Your task to perform on an android device: Go to Yahoo.com Image 0: 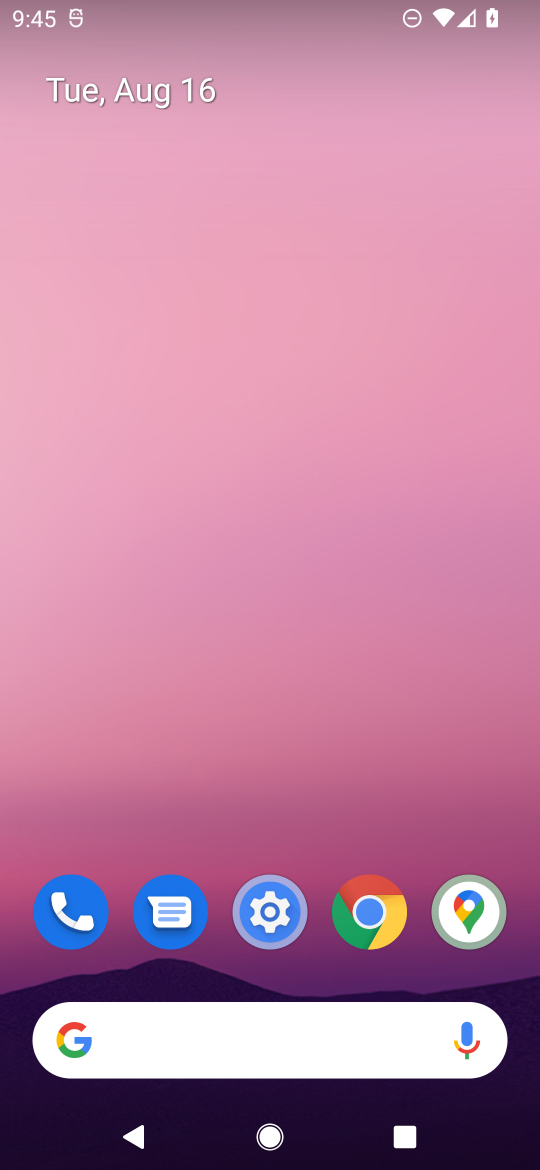
Step 0: click (373, 917)
Your task to perform on an android device: Go to Yahoo.com Image 1: 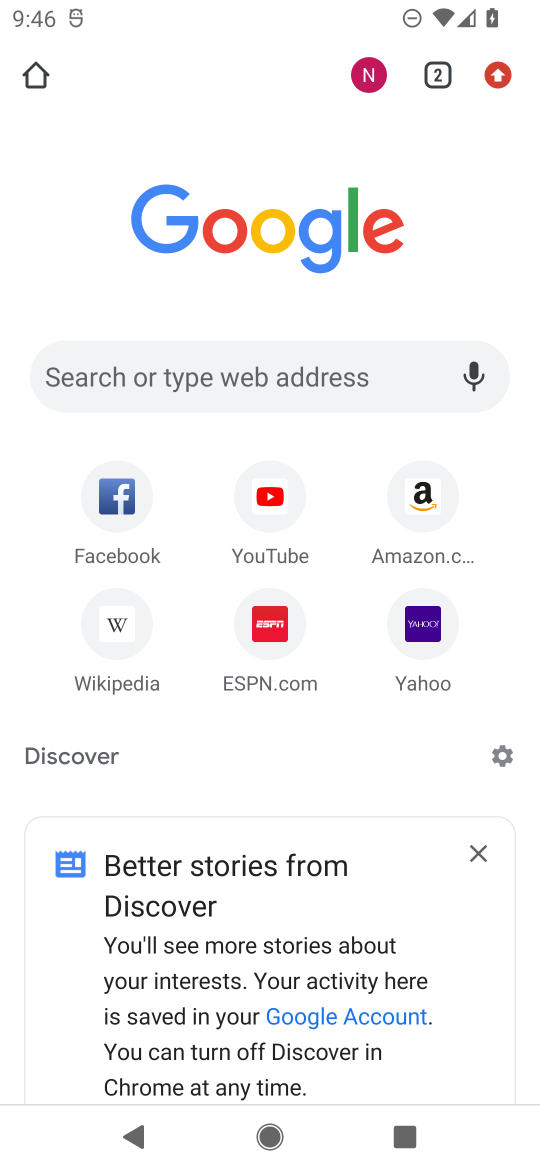
Step 1: click (412, 641)
Your task to perform on an android device: Go to Yahoo.com Image 2: 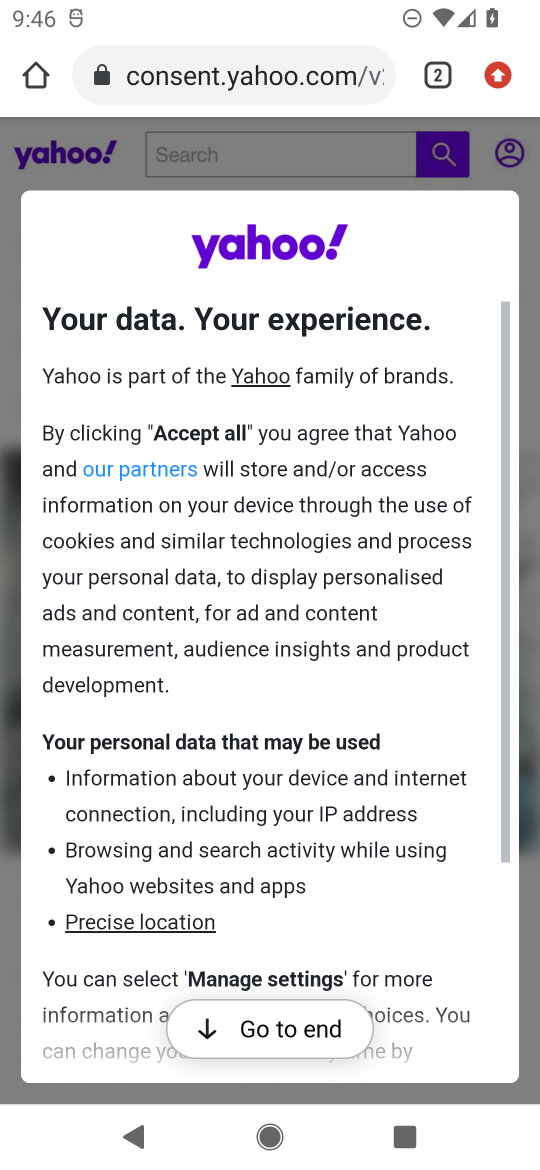
Step 2: task complete